Your task to perform on an android device: Search for Mexican restaurants on Maps Image 0: 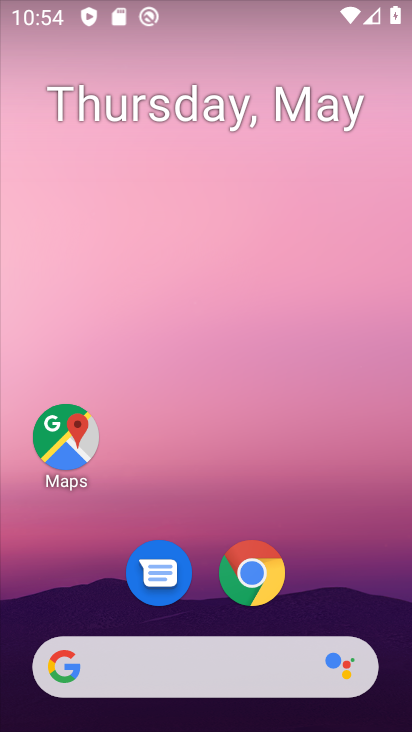
Step 0: click (79, 428)
Your task to perform on an android device: Search for Mexican restaurants on Maps Image 1: 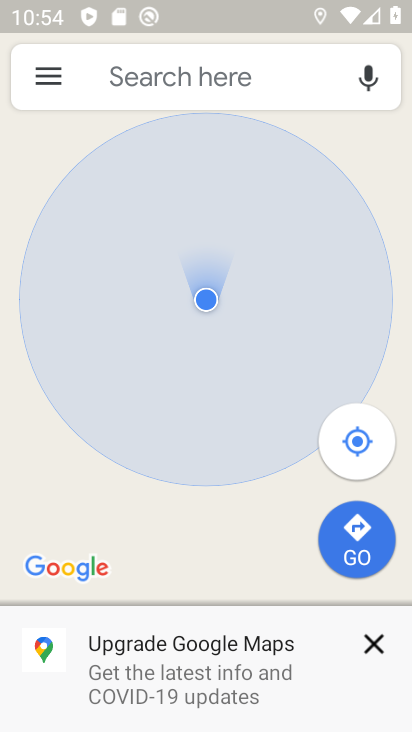
Step 1: click (376, 644)
Your task to perform on an android device: Search for Mexican restaurants on Maps Image 2: 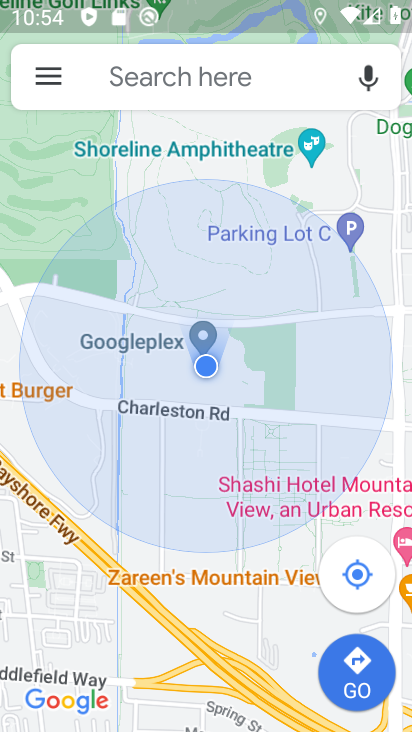
Step 2: click (179, 95)
Your task to perform on an android device: Search for Mexican restaurants on Maps Image 3: 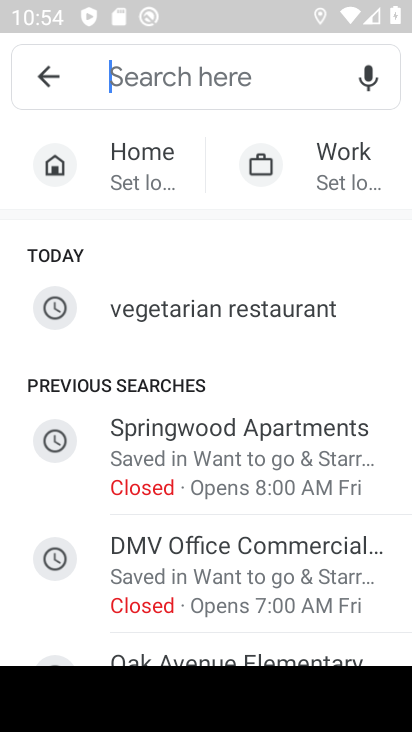
Step 3: type "Mexican restaurants"
Your task to perform on an android device: Search for Mexican restaurants on Maps Image 4: 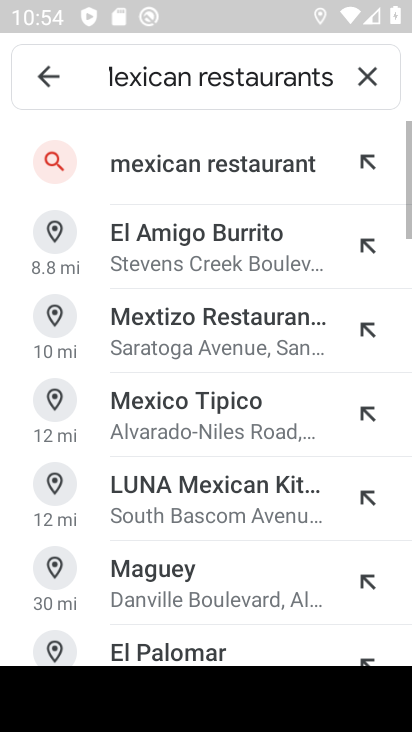
Step 4: click (256, 179)
Your task to perform on an android device: Search for Mexican restaurants on Maps Image 5: 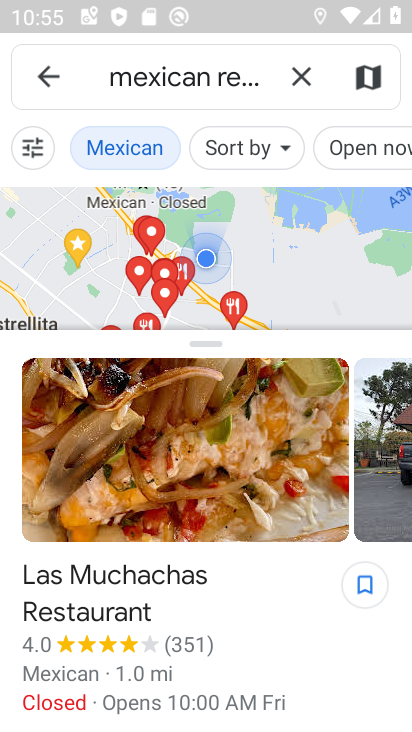
Step 5: task complete